Your task to perform on an android device: Open my contact list Image 0: 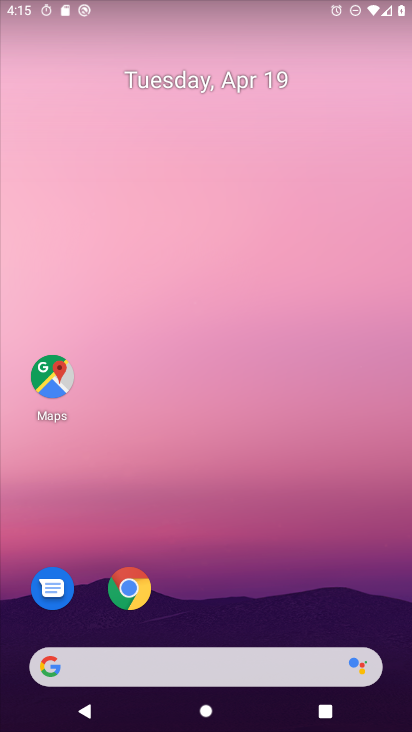
Step 0: drag from (202, 620) to (244, 162)
Your task to perform on an android device: Open my contact list Image 1: 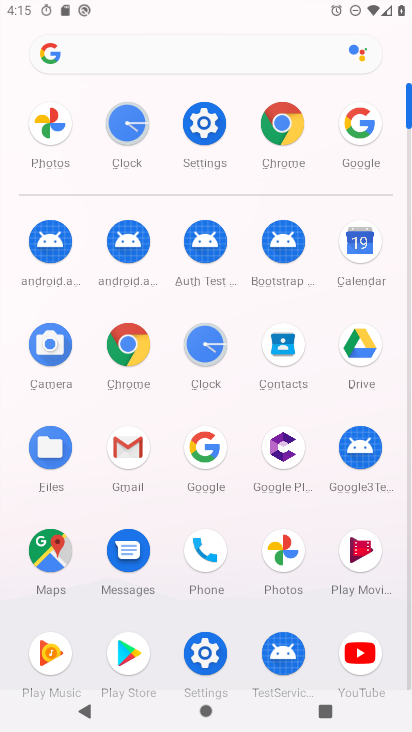
Step 1: click (287, 341)
Your task to perform on an android device: Open my contact list Image 2: 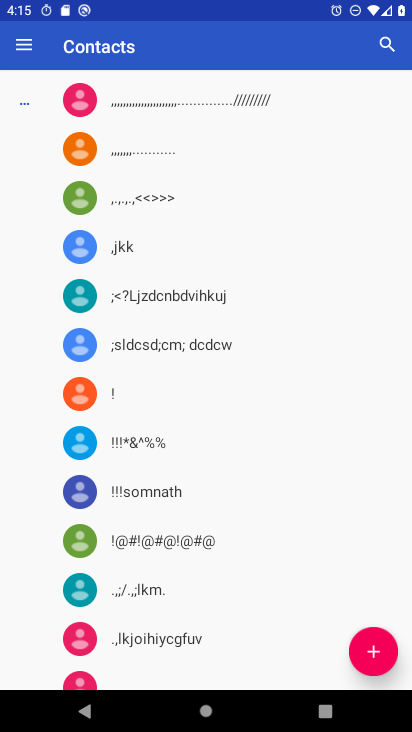
Step 2: task complete